Your task to perform on an android device: open wifi settings Image 0: 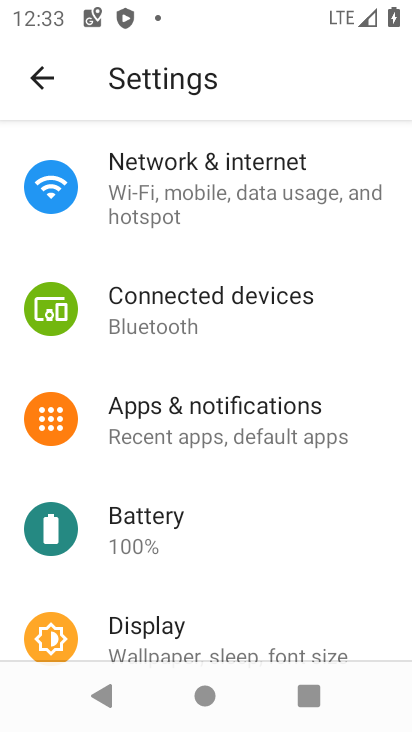
Step 0: click (182, 188)
Your task to perform on an android device: open wifi settings Image 1: 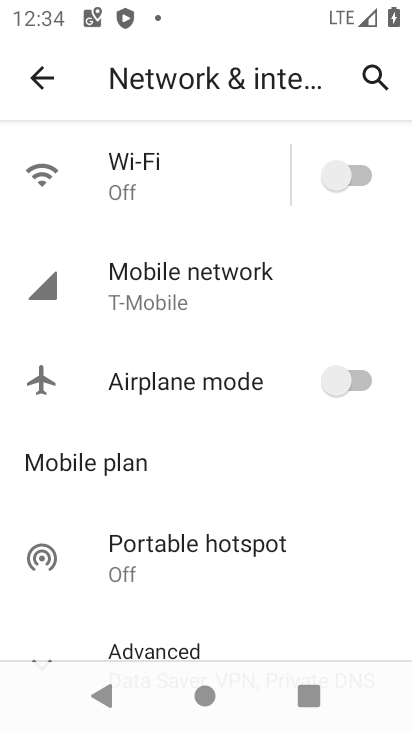
Step 1: click (38, 170)
Your task to perform on an android device: open wifi settings Image 2: 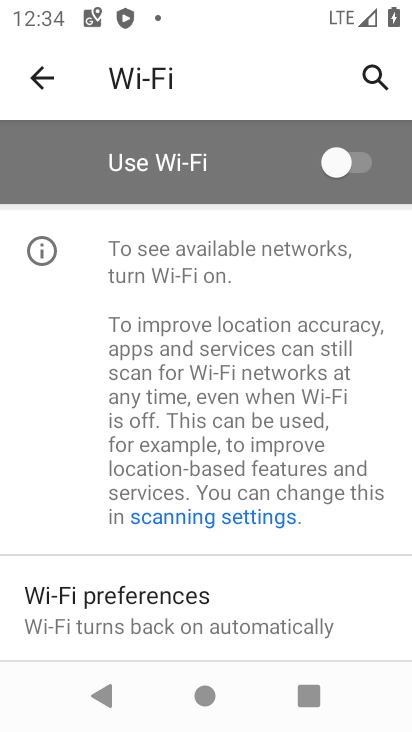
Step 2: task complete